Your task to perform on an android device: Go to Google maps Image 0: 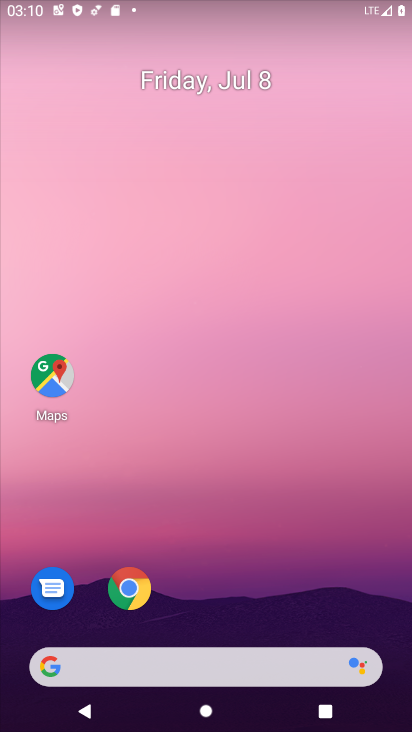
Step 0: click (67, 370)
Your task to perform on an android device: Go to Google maps Image 1: 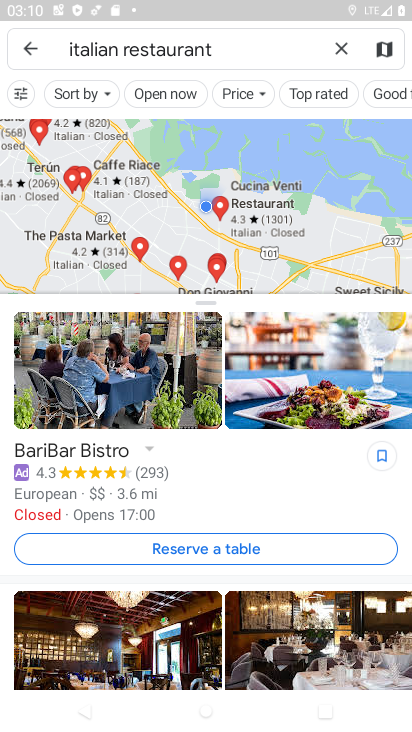
Step 1: task complete